Your task to perform on an android device: see creations saved in the google photos Image 0: 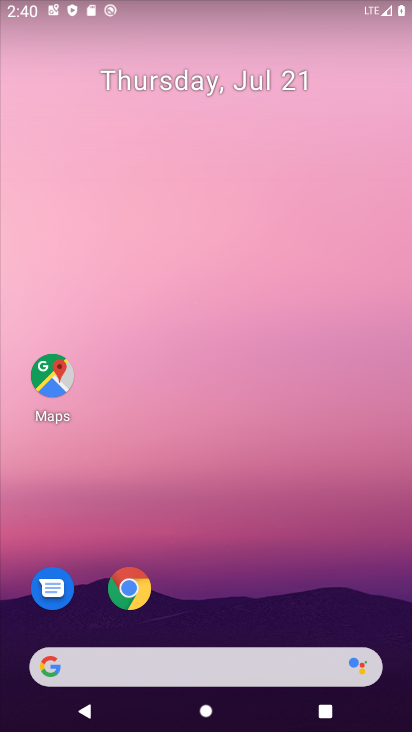
Step 0: drag from (232, 606) to (295, 58)
Your task to perform on an android device: see creations saved in the google photos Image 1: 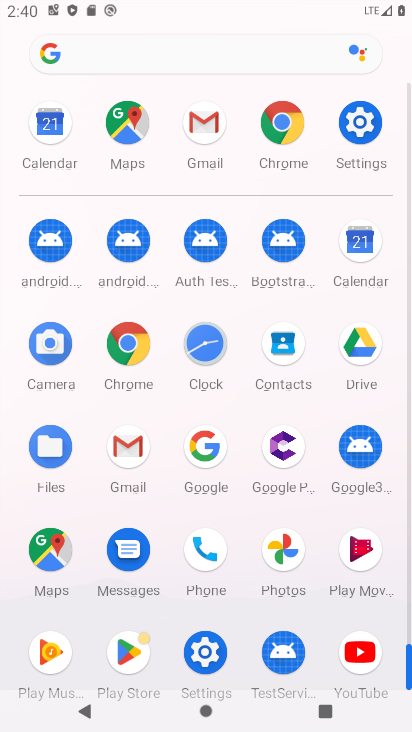
Step 1: drag from (252, 586) to (294, 258)
Your task to perform on an android device: see creations saved in the google photos Image 2: 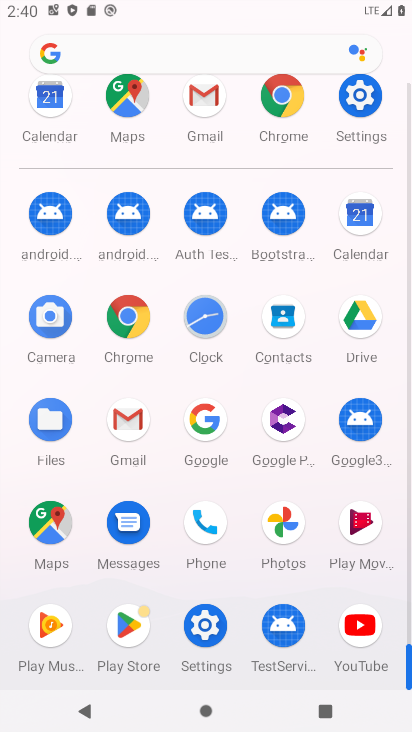
Step 2: click (280, 519)
Your task to perform on an android device: see creations saved in the google photos Image 3: 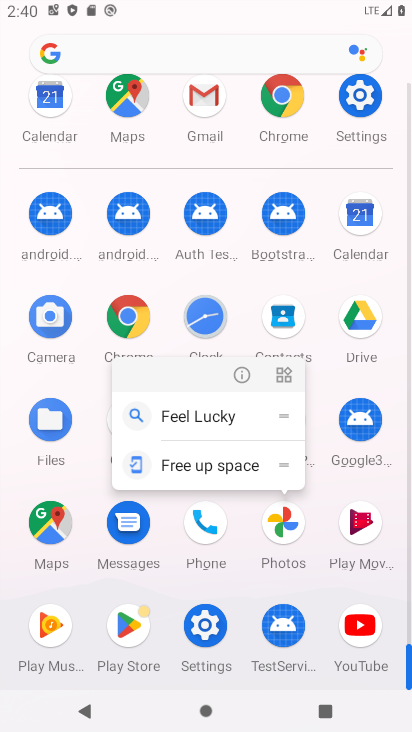
Step 3: click (239, 360)
Your task to perform on an android device: see creations saved in the google photos Image 4: 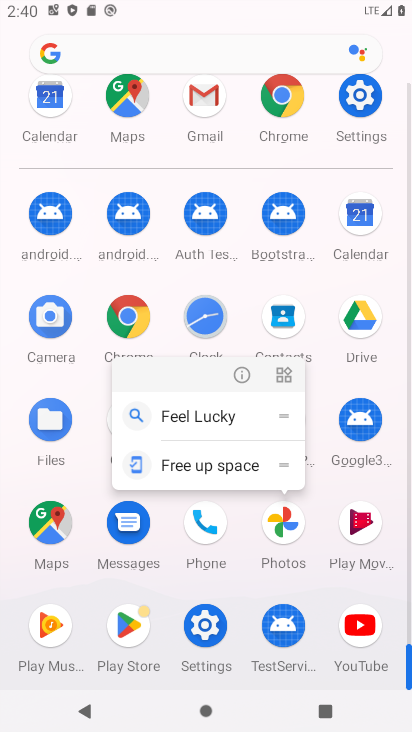
Step 4: click (239, 360)
Your task to perform on an android device: see creations saved in the google photos Image 5: 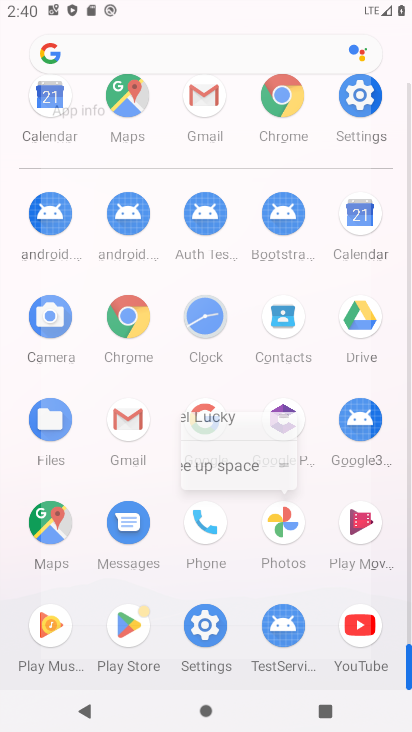
Step 5: click (239, 360)
Your task to perform on an android device: see creations saved in the google photos Image 6: 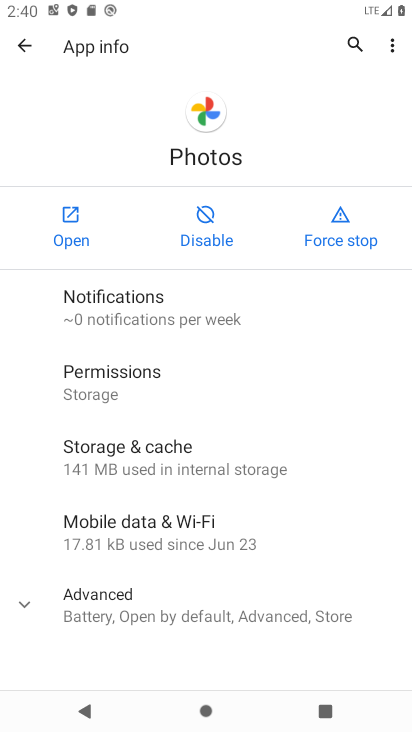
Step 6: drag from (163, 534) to (169, 320)
Your task to perform on an android device: see creations saved in the google photos Image 7: 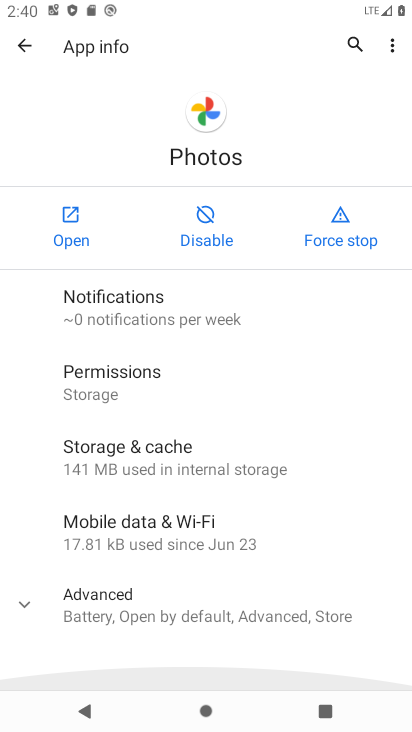
Step 7: drag from (168, 249) to (258, 714)
Your task to perform on an android device: see creations saved in the google photos Image 8: 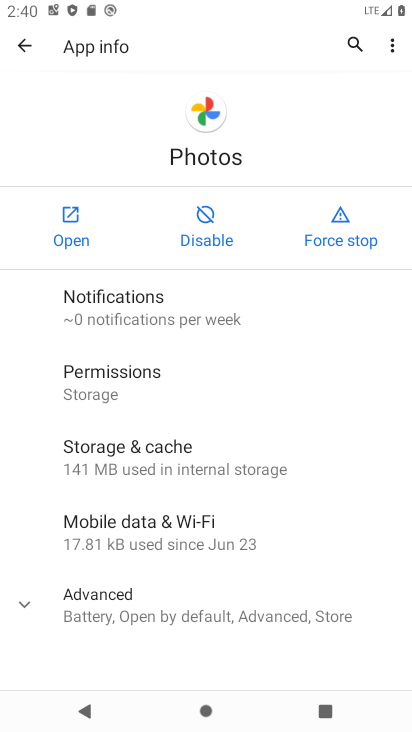
Step 8: click (68, 234)
Your task to perform on an android device: see creations saved in the google photos Image 9: 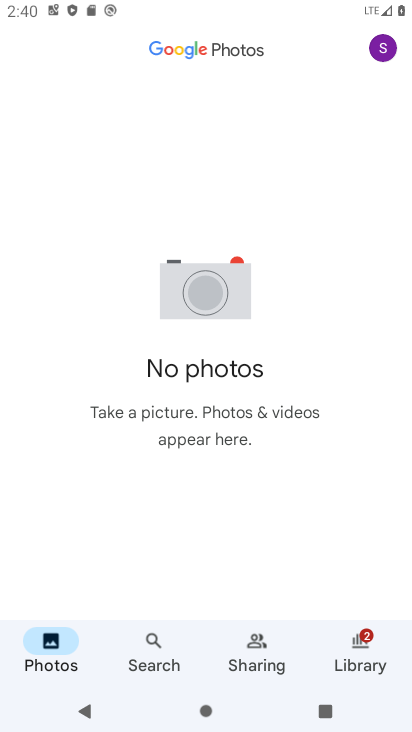
Step 9: drag from (264, 549) to (268, 383)
Your task to perform on an android device: see creations saved in the google photos Image 10: 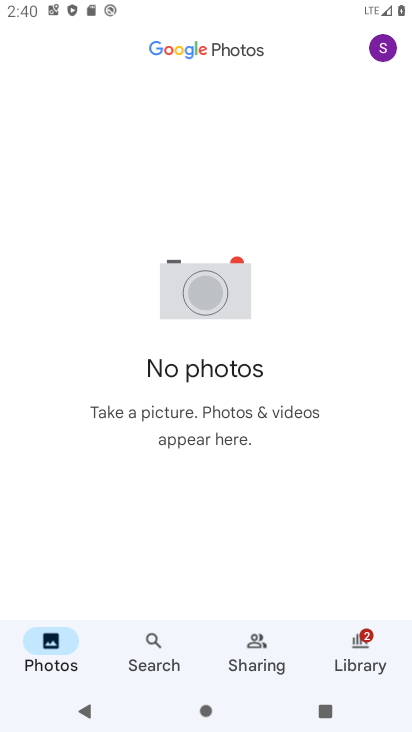
Step 10: drag from (235, 576) to (236, 341)
Your task to perform on an android device: see creations saved in the google photos Image 11: 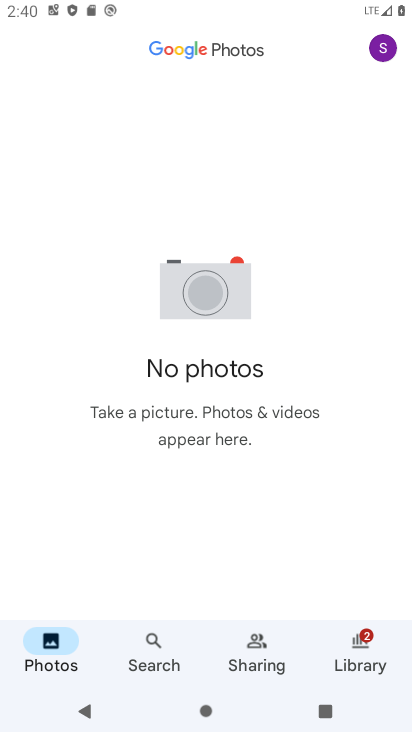
Step 11: drag from (238, 515) to (238, 420)
Your task to perform on an android device: see creations saved in the google photos Image 12: 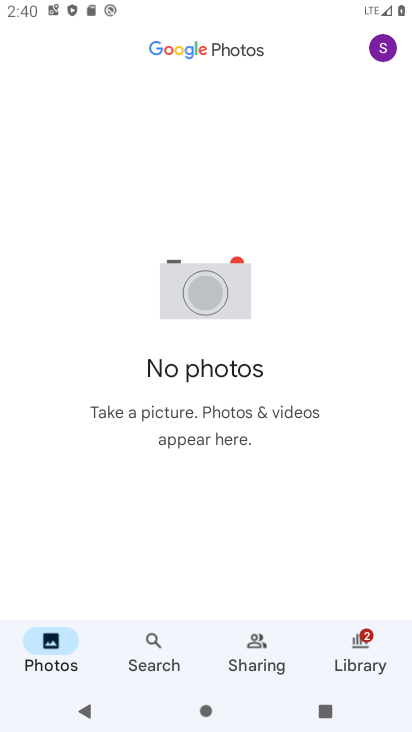
Step 12: drag from (233, 474) to (243, 193)
Your task to perform on an android device: see creations saved in the google photos Image 13: 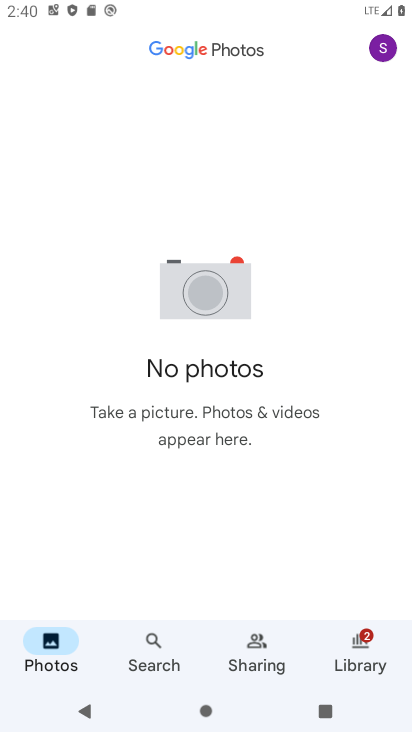
Step 13: drag from (381, 41) to (286, 413)
Your task to perform on an android device: see creations saved in the google photos Image 14: 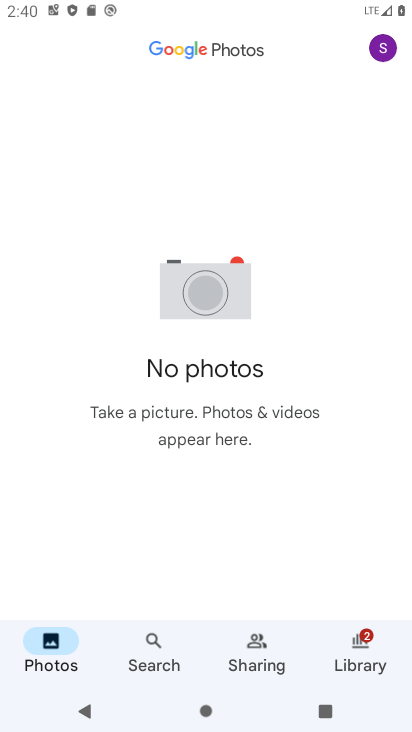
Step 14: drag from (381, 45) to (348, 209)
Your task to perform on an android device: see creations saved in the google photos Image 15: 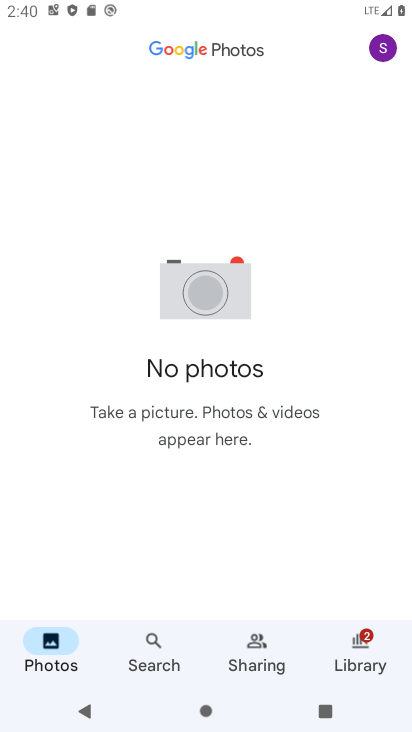
Step 15: click (386, 51)
Your task to perform on an android device: see creations saved in the google photos Image 16: 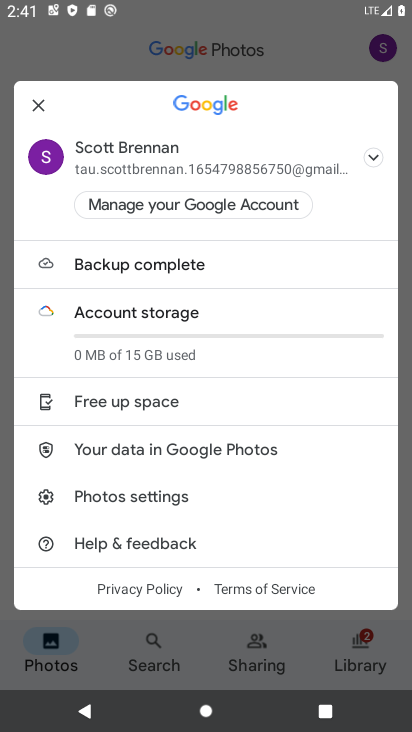
Step 16: click (152, 497)
Your task to perform on an android device: see creations saved in the google photos Image 17: 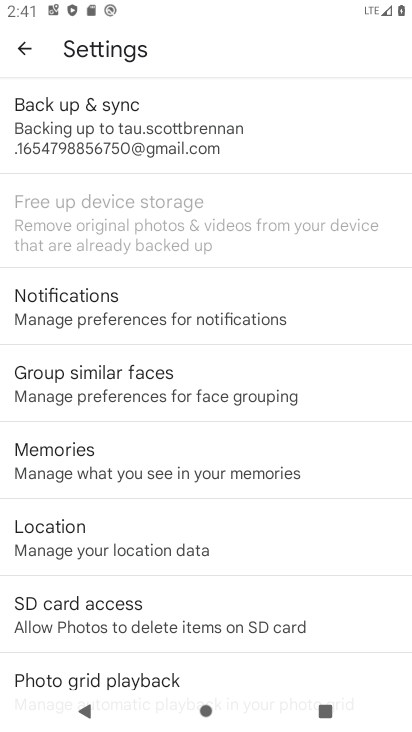
Step 17: click (13, 54)
Your task to perform on an android device: see creations saved in the google photos Image 18: 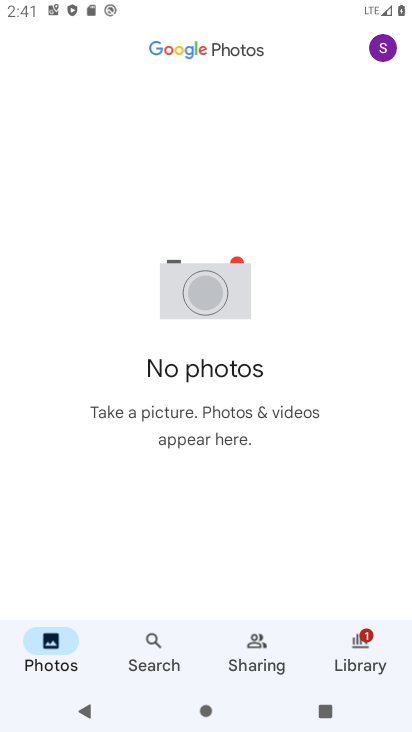
Step 18: drag from (219, 562) to (172, 22)
Your task to perform on an android device: see creations saved in the google photos Image 19: 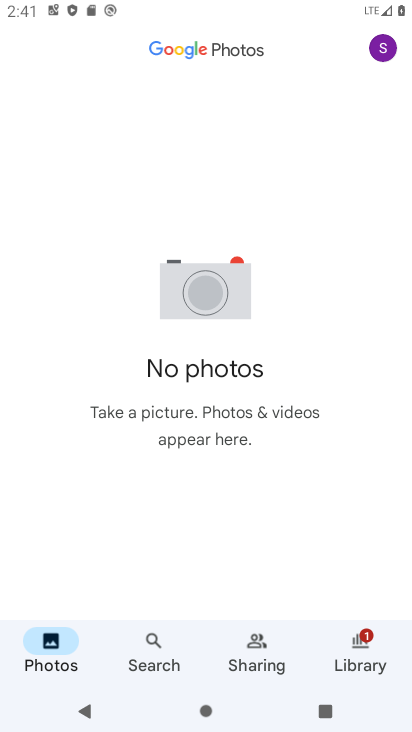
Step 19: click (156, 640)
Your task to perform on an android device: see creations saved in the google photos Image 20: 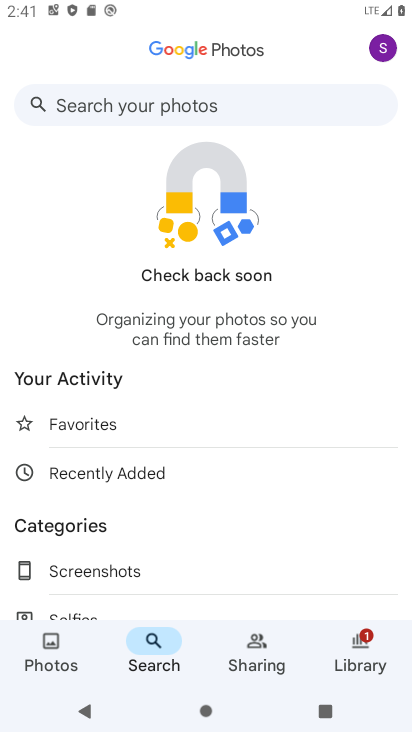
Step 20: click (142, 120)
Your task to perform on an android device: see creations saved in the google photos Image 21: 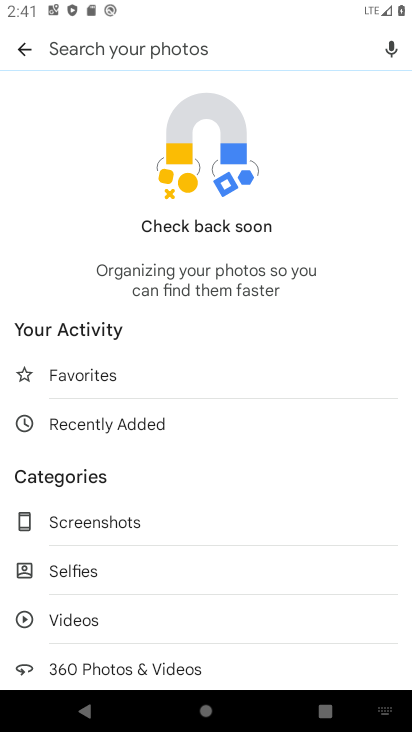
Step 21: drag from (210, 577) to (273, 82)
Your task to perform on an android device: see creations saved in the google photos Image 22: 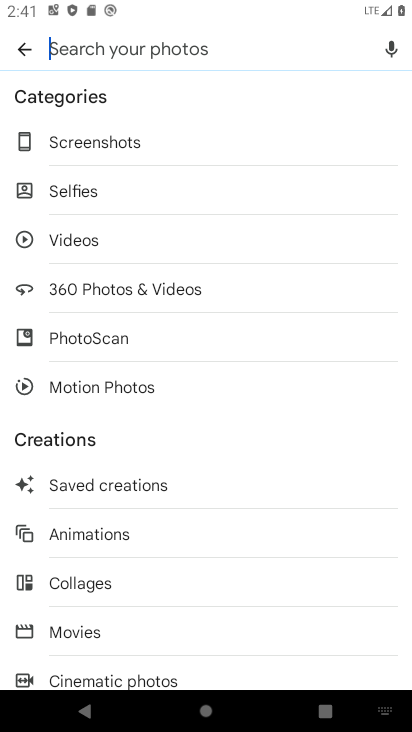
Step 22: drag from (145, 670) to (225, 169)
Your task to perform on an android device: see creations saved in the google photos Image 23: 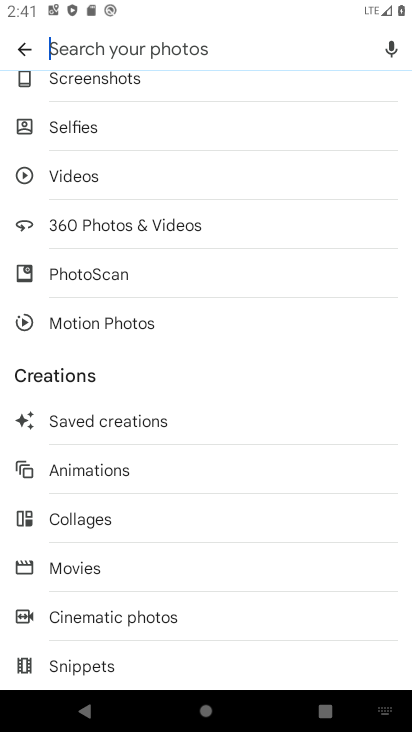
Step 23: drag from (116, 652) to (182, 295)
Your task to perform on an android device: see creations saved in the google photos Image 24: 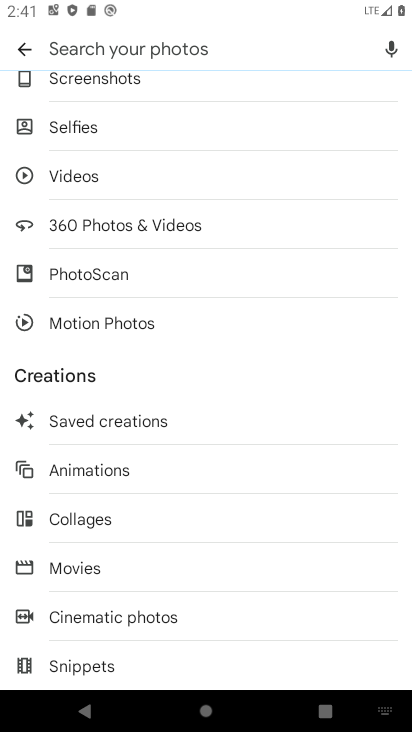
Step 24: click (126, 419)
Your task to perform on an android device: see creations saved in the google photos Image 25: 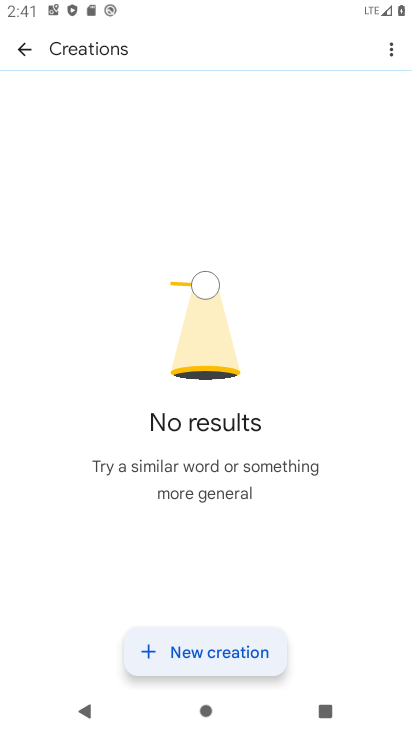
Step 25: task complete